Your task to perform on an android device: What's the weather today? Image 0: 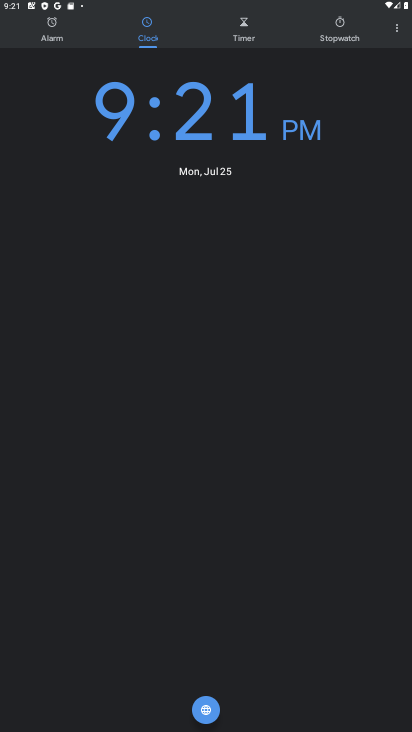
Step 0: press home button
Your task to perform on an android device: What's the weather today? Image 1: 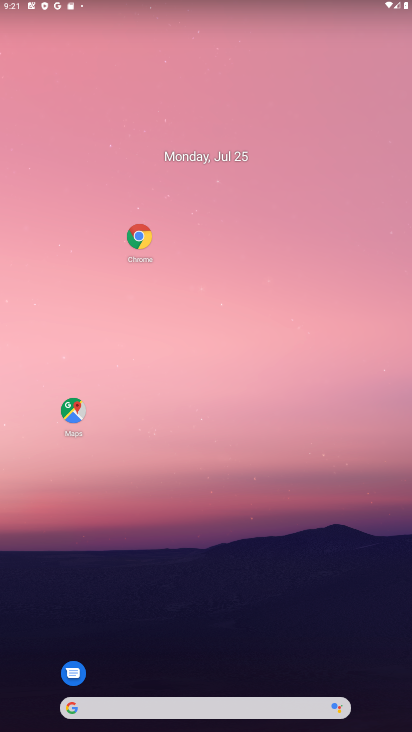
Step 1: click (199, 708)
Your task to perform on an android device: What's the weather today? Image 2: 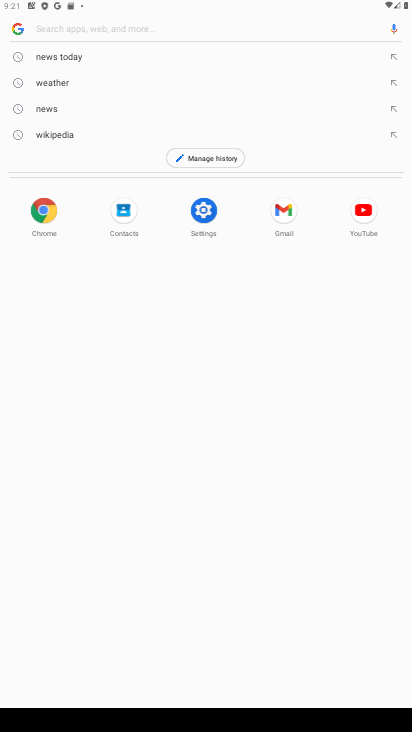
Step 2: click (63, 90)
Your task to perform on an android device: What's the weather today? Image 3: 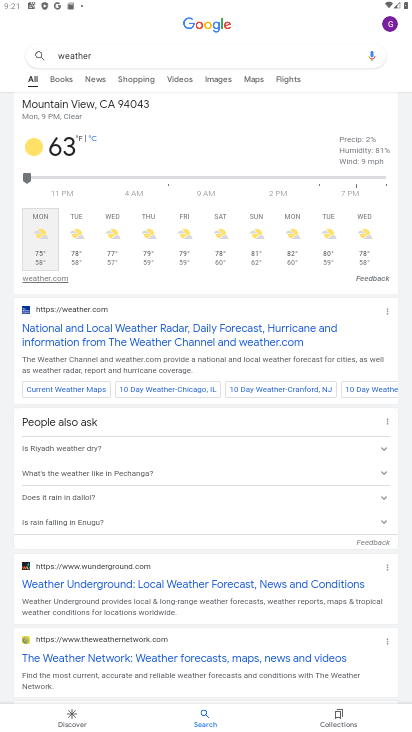
Step 3: task complete